Your task to perform on an android device: What's on my calendar tomorrow? Image 0: 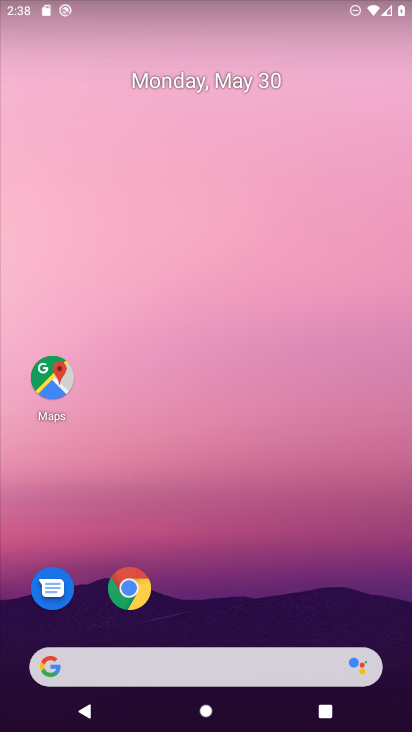
Step 0: drag from (179, 614) to (205, 188)
Your task to perform on an android device: What's on my calendar tomorrow? Image 1: 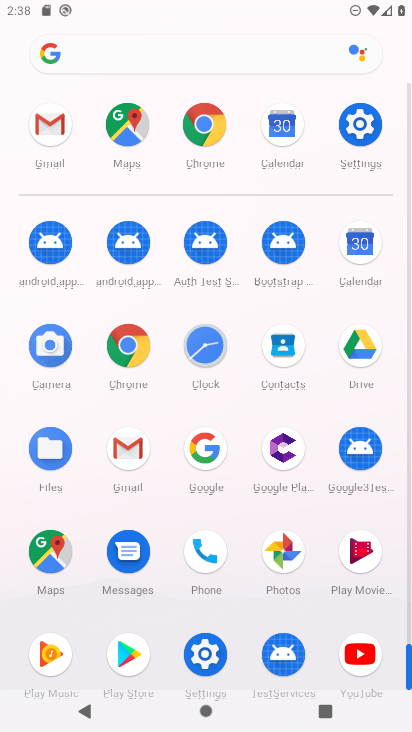
Step 1: click (358, 233)
Your task to perform on an android device: What's on my calendar tomorrow? Image 2: 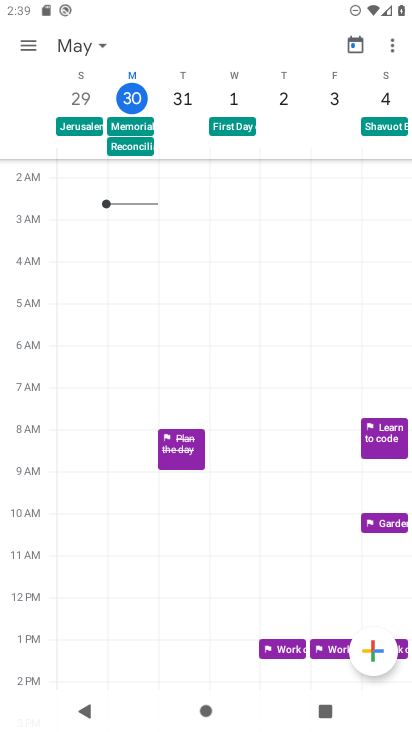
Step 2: click (183, 94)
Your task to perform on an android device: What's on my calendar tomorrow? Image 3: 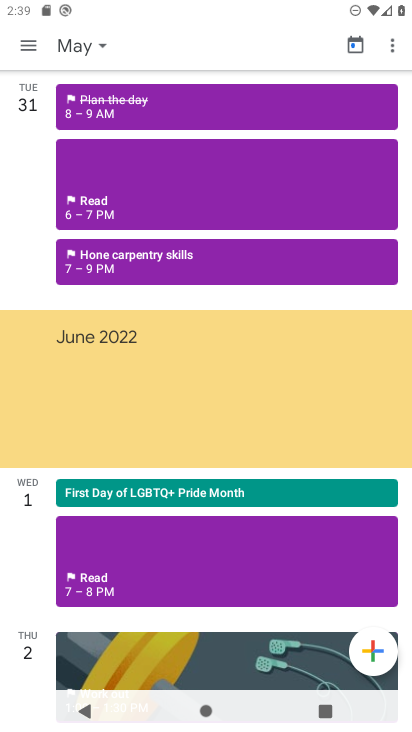
Step 3: task complete